Your task to perform on an android device: Open settings on Google Maps Image 0: 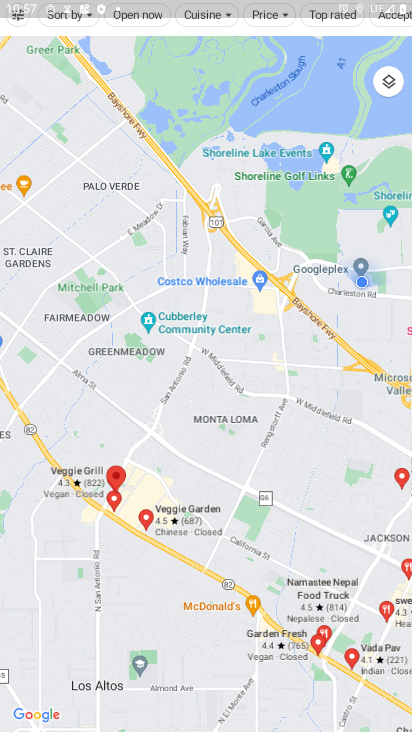
Step 0: click (62, 134)
Your task to perform on an android device: Open settings on Google Maps Image 1: 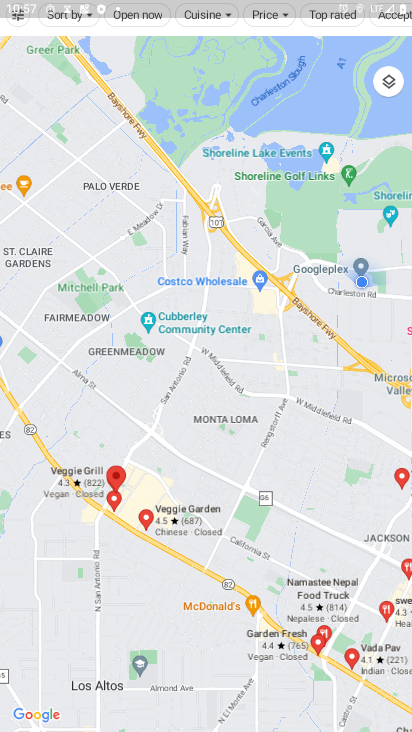
Step 1: drag from (123, 93) to (152, 70)
Your task to perform on an android device: Open settings on Google Maps Image 2: 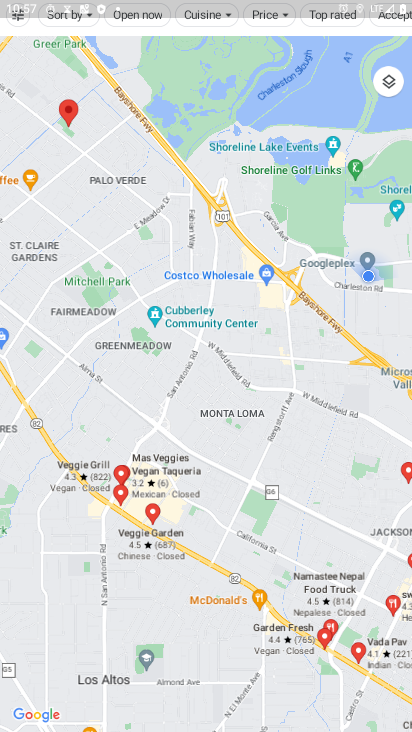
Step 2: click (152, 69)
Your task to perform on an android device: Open settings on Google Maps Image 3: 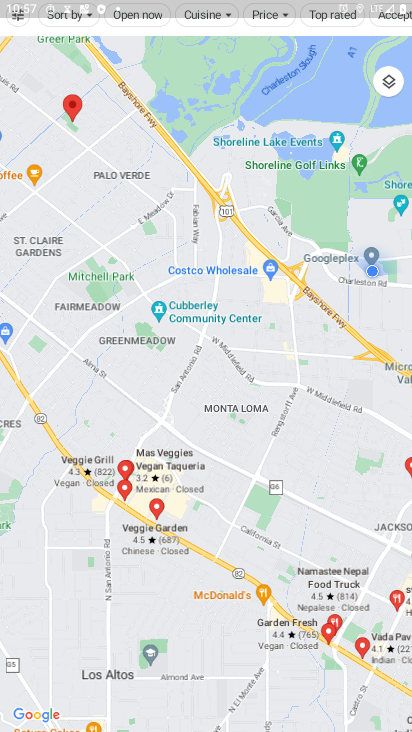
Step 3: click (155, 72)
Your task to perform on an android device: Open settings on Google Maps Image 4: 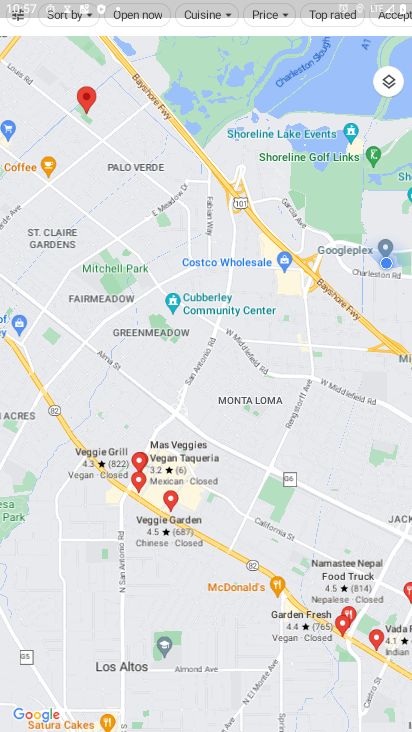
Step 4: click (169, 69)
Your task to perform on an android device: Open settings on Google Maps Image 5: 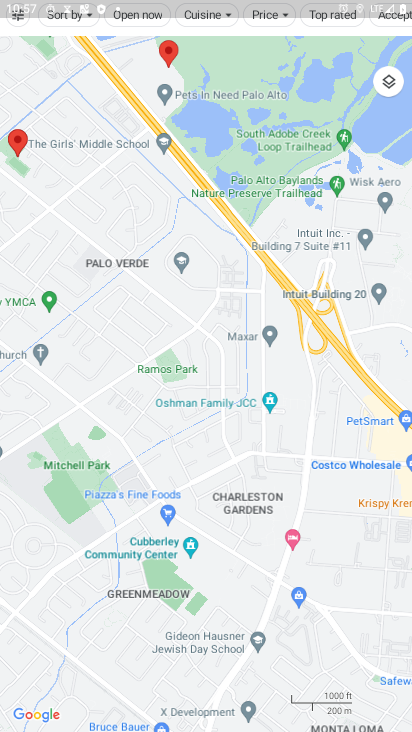
Step 5: click (163, 73)
Your task to perform on an android device: Open settings on Google Maps Image 6: 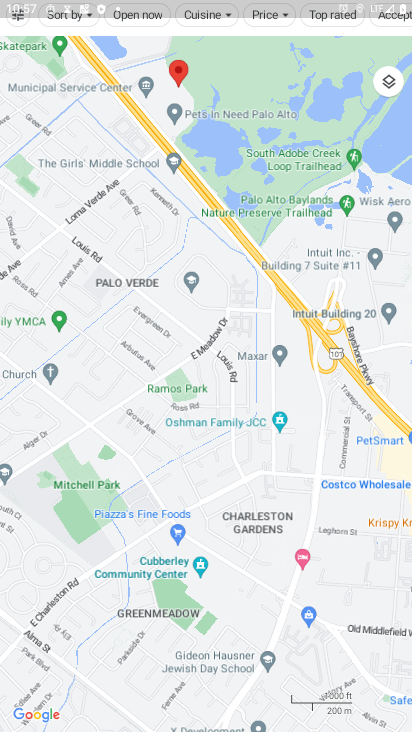
Step 6: click (167, 86)
Your task to perform on an android device: Open settings on Google Maps Image 7: 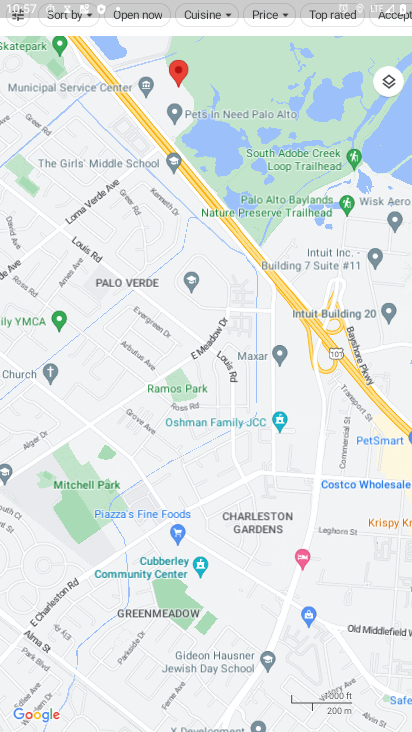
Step 7: click (167, 86)
Your task to perform on an android device: Open settings on Google Maps Image 8: 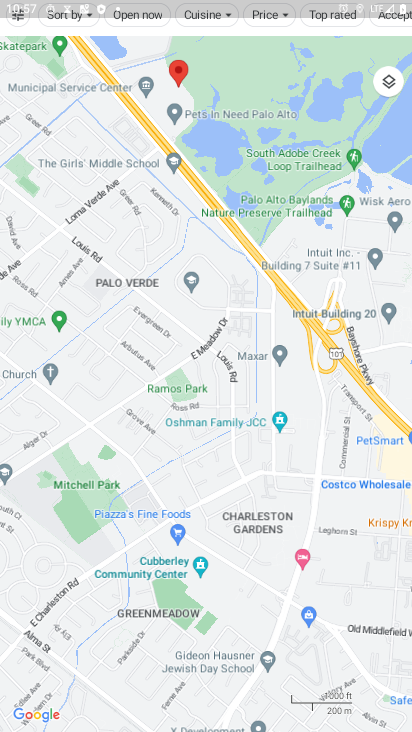
Step 8: click (139, 32)
Your task to perform on an android device: Open settings on Google Maps Image 9: 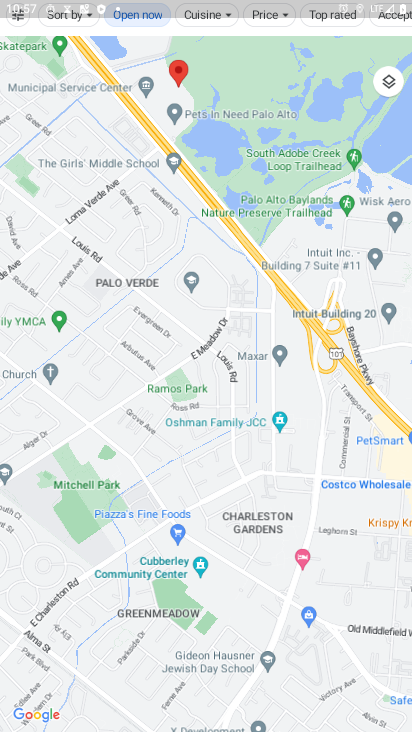
Step 9: click (198, 91)
Your task to perform on an android device: Open settings on Google Maps Image 10: 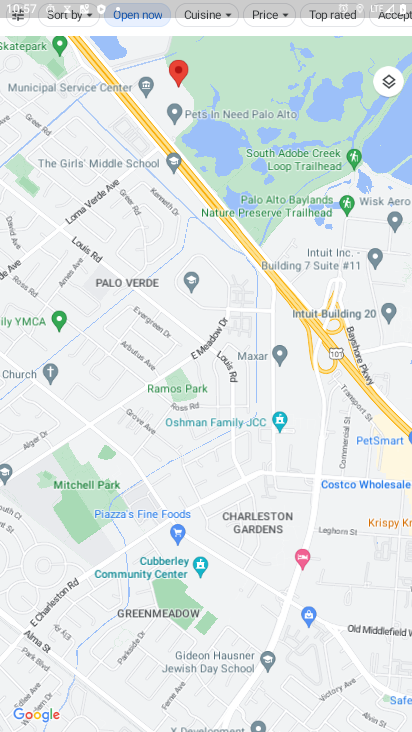
Step 10: task complete